Your task to perform on an android device: check data usage Image 0: 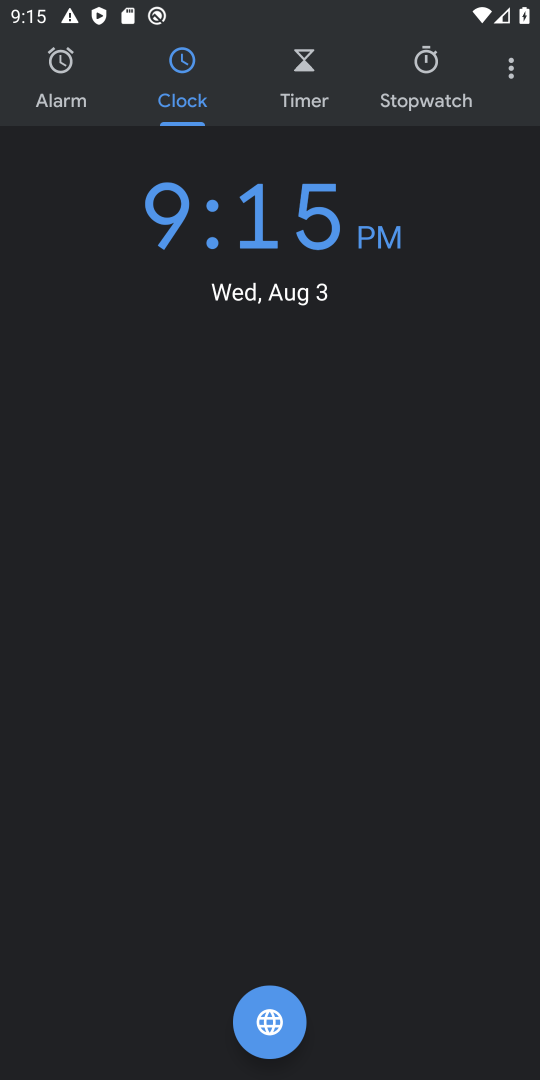
Step 0: press home button
Your task to perform on an android device: check data usage Image 1: 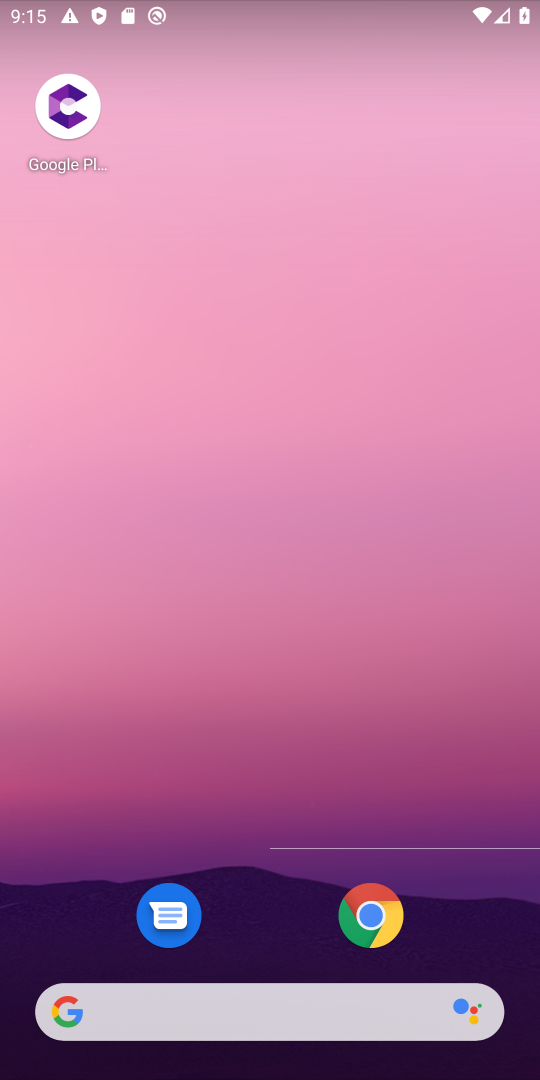
Step 1: drag from (259, 905) to (404, 330)
Your task to perform on an android device: check data usage Image 2: 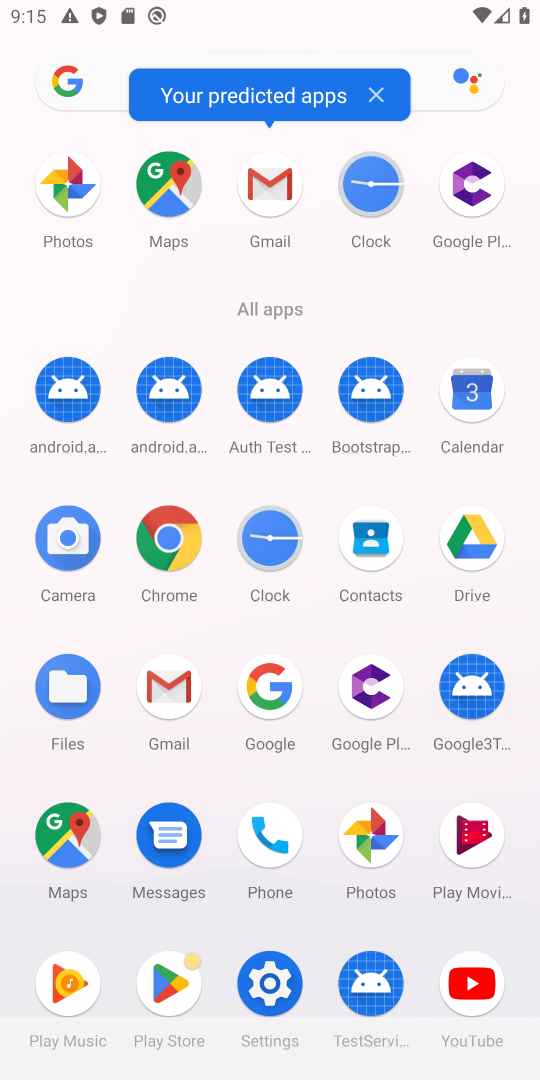
Step 2: click (265, 977)
Your task to perform on an android device: check data usage Image 3: 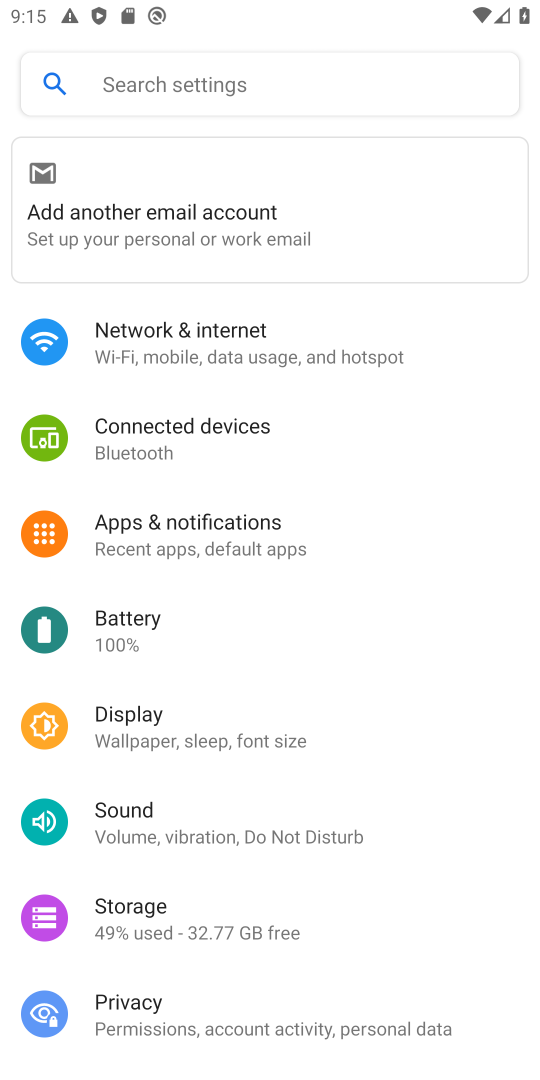
Step 3: click (241, 344)
Your task to perform on an android device: check data usage Image 4: 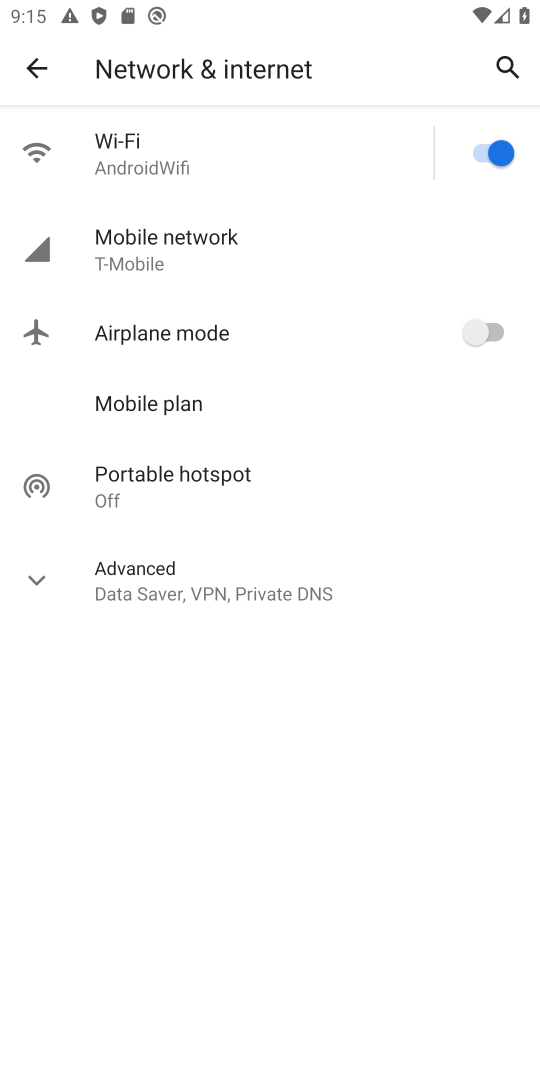
Step 4: click (182, 272)
Your task to perform on an android device: check data usage Image 5: 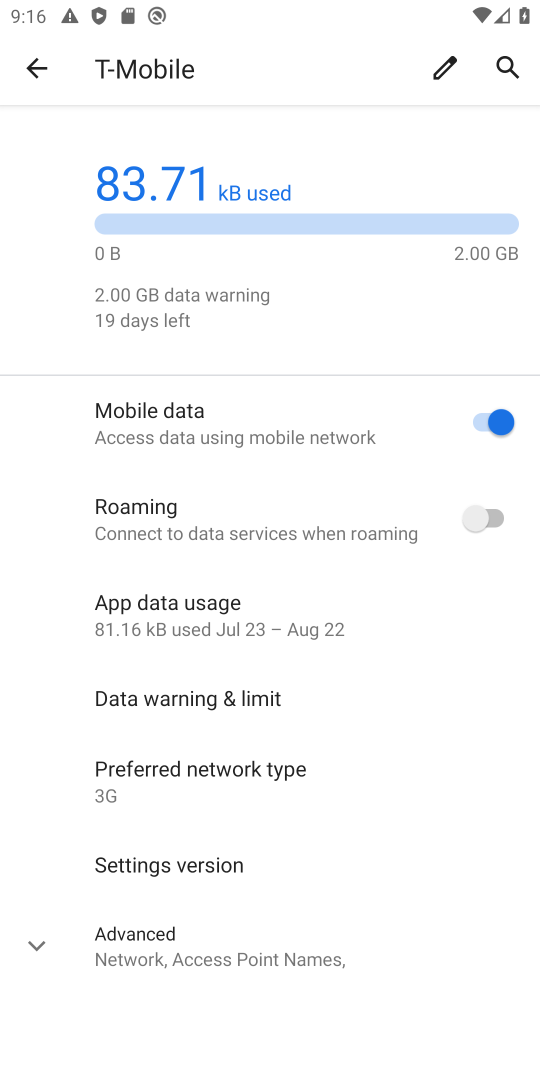
Step 5: task complete